Your task to perform on an android device: Go to display settings Image 0: 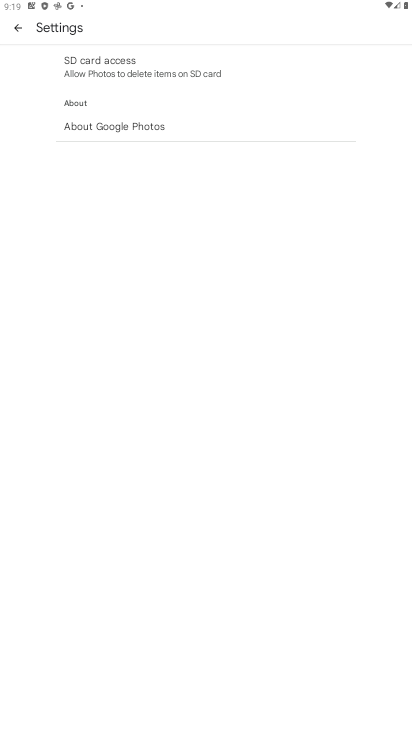
Step 0: press home button
Your task to perform on an android device: Go to display settings Image 1: 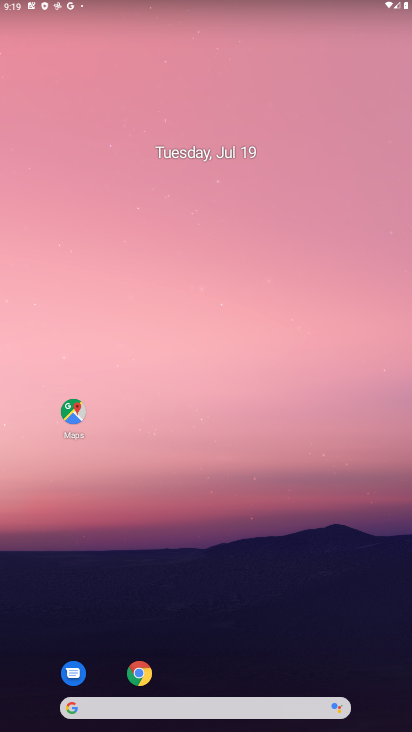
Step 1: click (195, 668)
Your task to perform on an android device: Go to display settings Image 2: 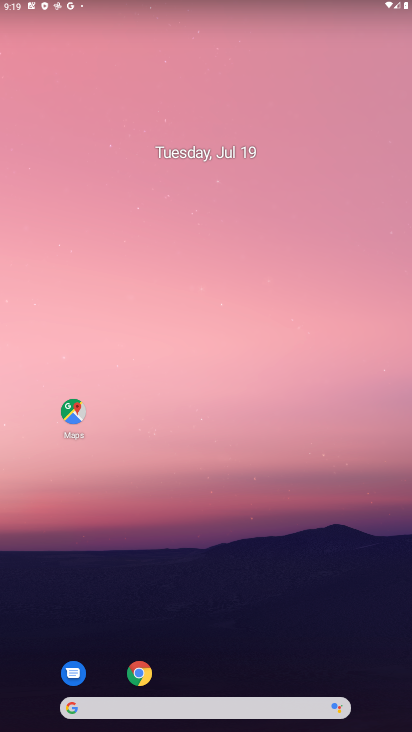
Step 2: drag from (201, 670) to (159, 72)
Your task to perform on an android device: Go to display settings Image 3: 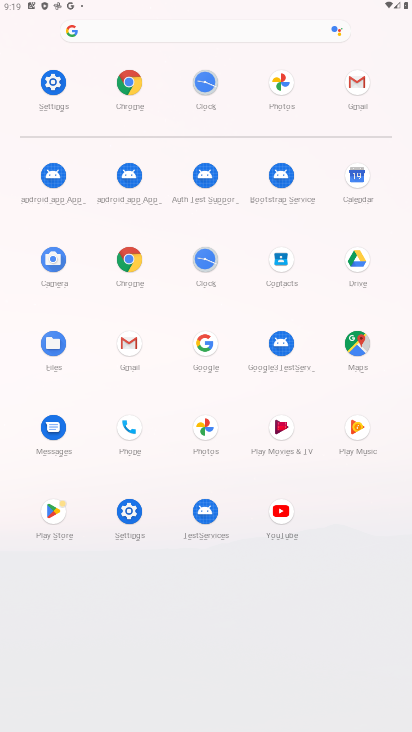
Step 3: click (64, 101)
Your task to perform on an android device: Go to display settings Image 4: 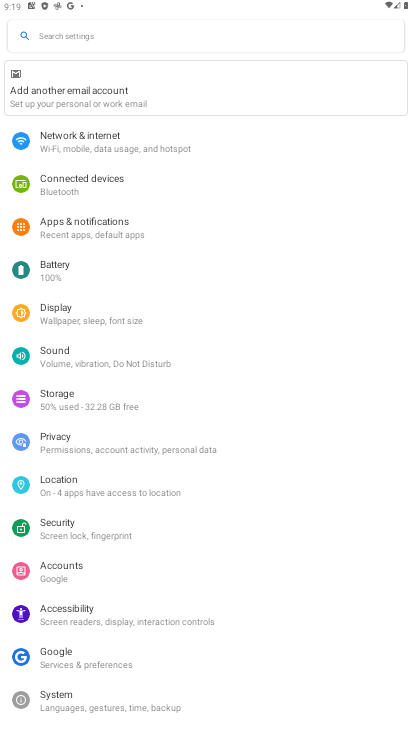
Step 4: click (64, 317)
Your task to perform on an android device: Go to display settings Image 5: 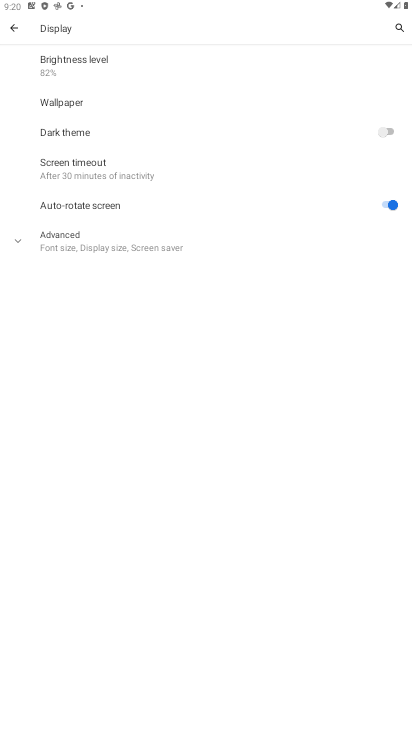
Step 5: task complete